Your task to perform on an android device: open app "Pluto TV - Live TV and Movies" (install if not already installed) Image 0: 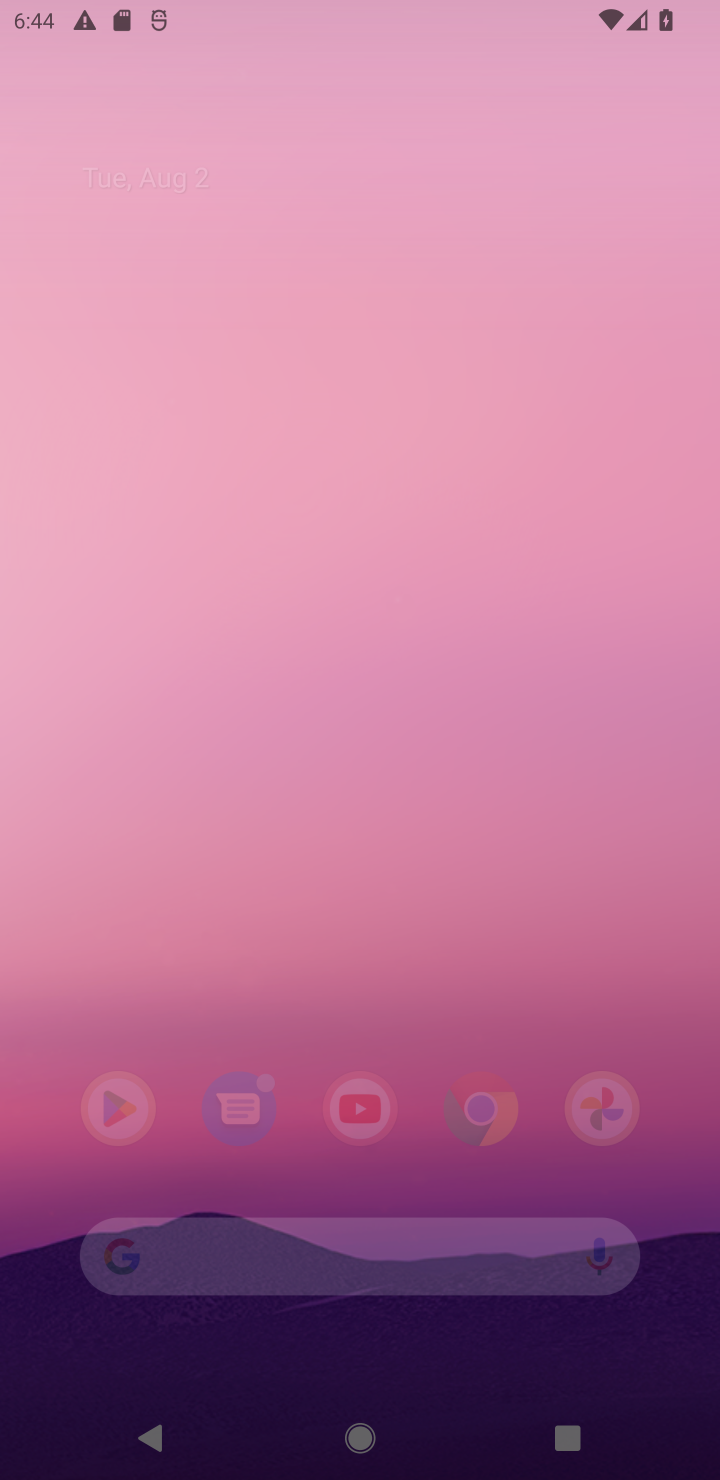
Step 0: press home button
Your task to perform on an android device: open app "Pluto TV - Live TV and Movies" (install if not already installed) Image 1: 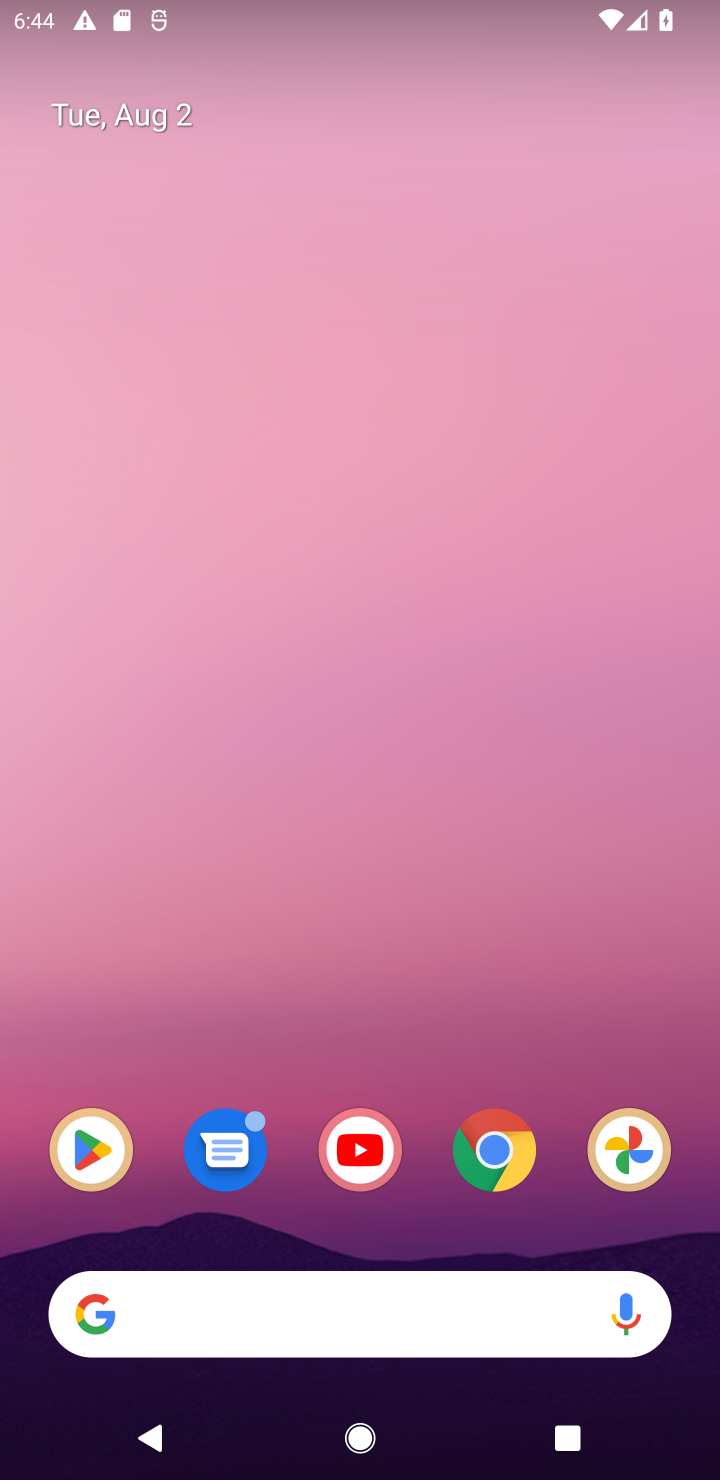
Step 1: drag from (294, 1215) to (400, 12)
Your task to perform on an android device: open app "Pluto TV - Live TV and Movies" (install if not already installed) Image 2: 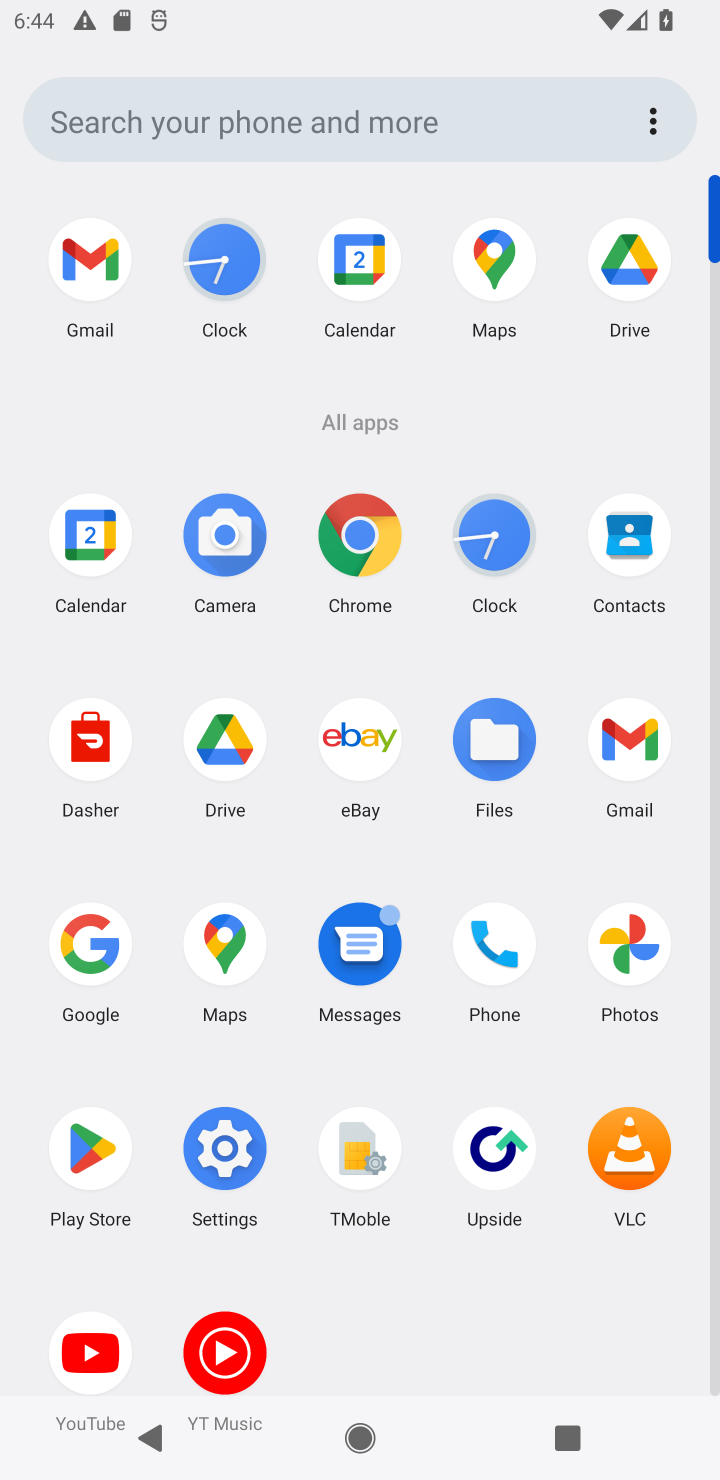
Step 2: click (80, 1148)
Your task to perform on an android device: open app "Pluto TV - Live TV and Movies" (install if not already installed) Image 3: 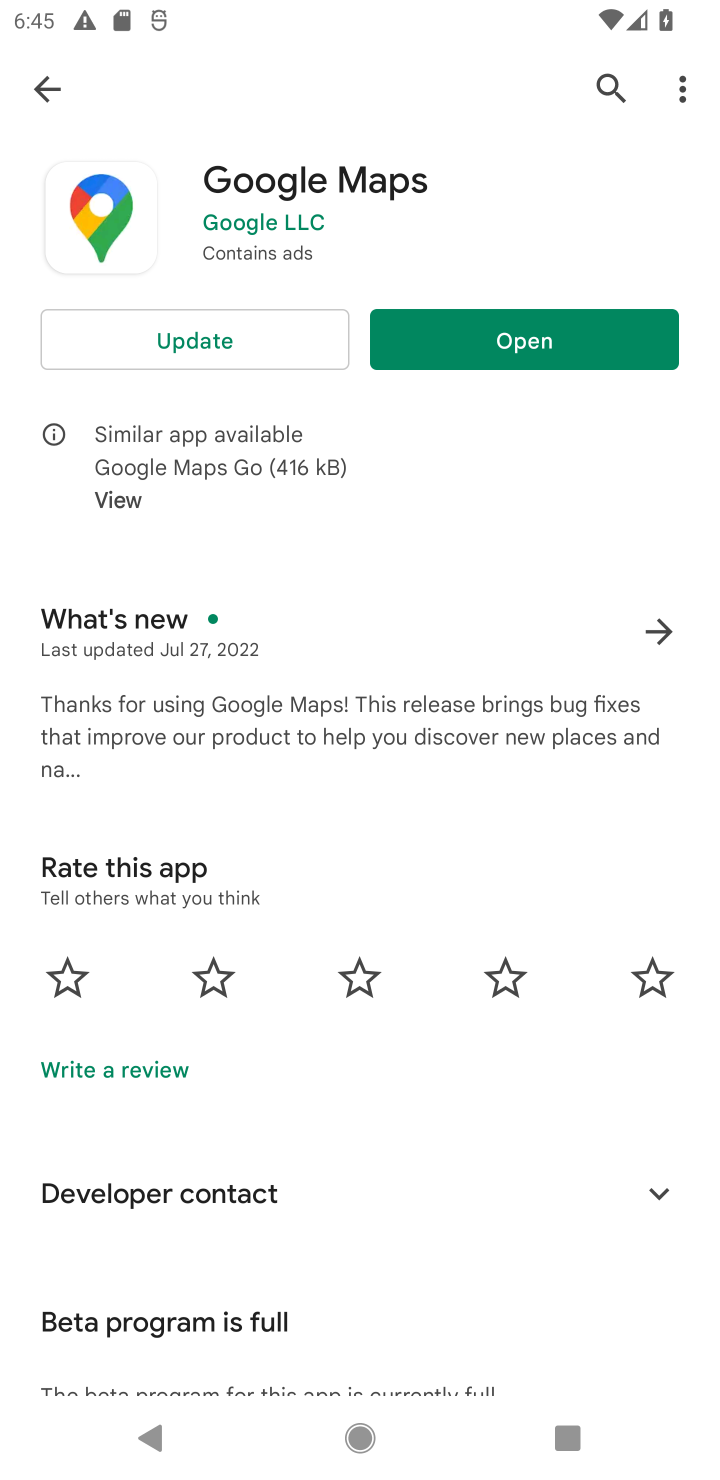
Step 3: click (40, 91)
Your task to perform on an android device: open app "Pluto TV - Live TV and Movies" (install if not already installed) Image 4: 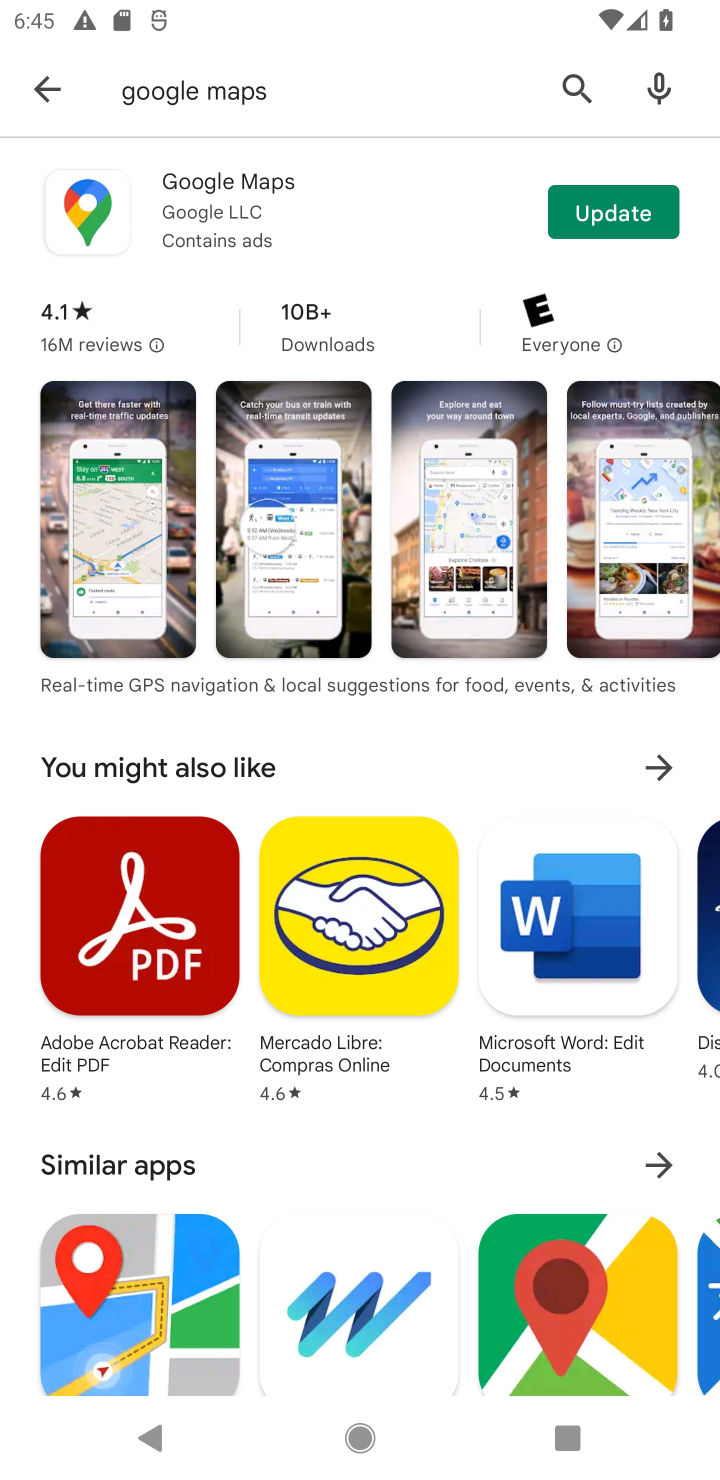
Step 4: click (16, 81)
Your task to perform on an android device: open app "Pluto TV - Live TV and Movies" (install if not already installed) Image 5: 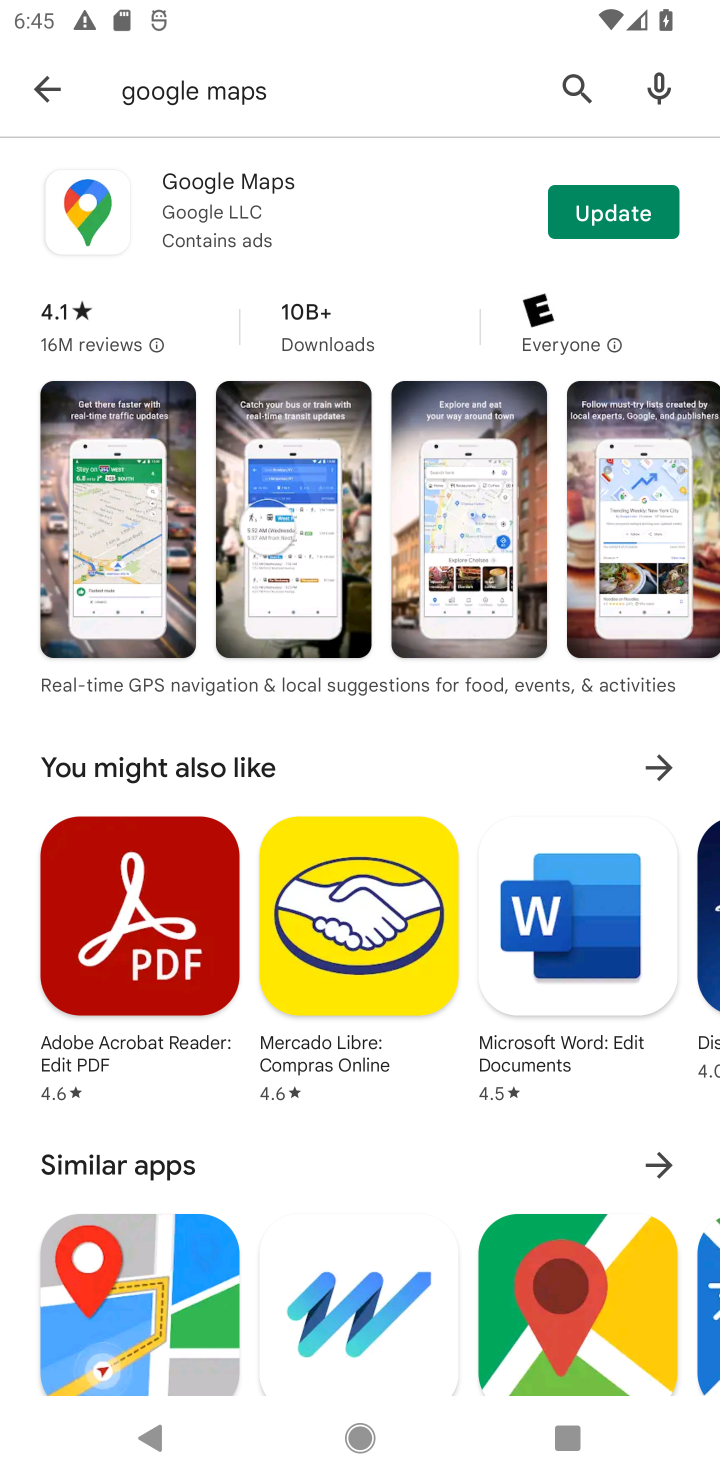
Step 5: click (23, 76)
Your task to perform on an android device: open app "Pluto TV - Live TV and Movies" (install if not already installed) Image 6: 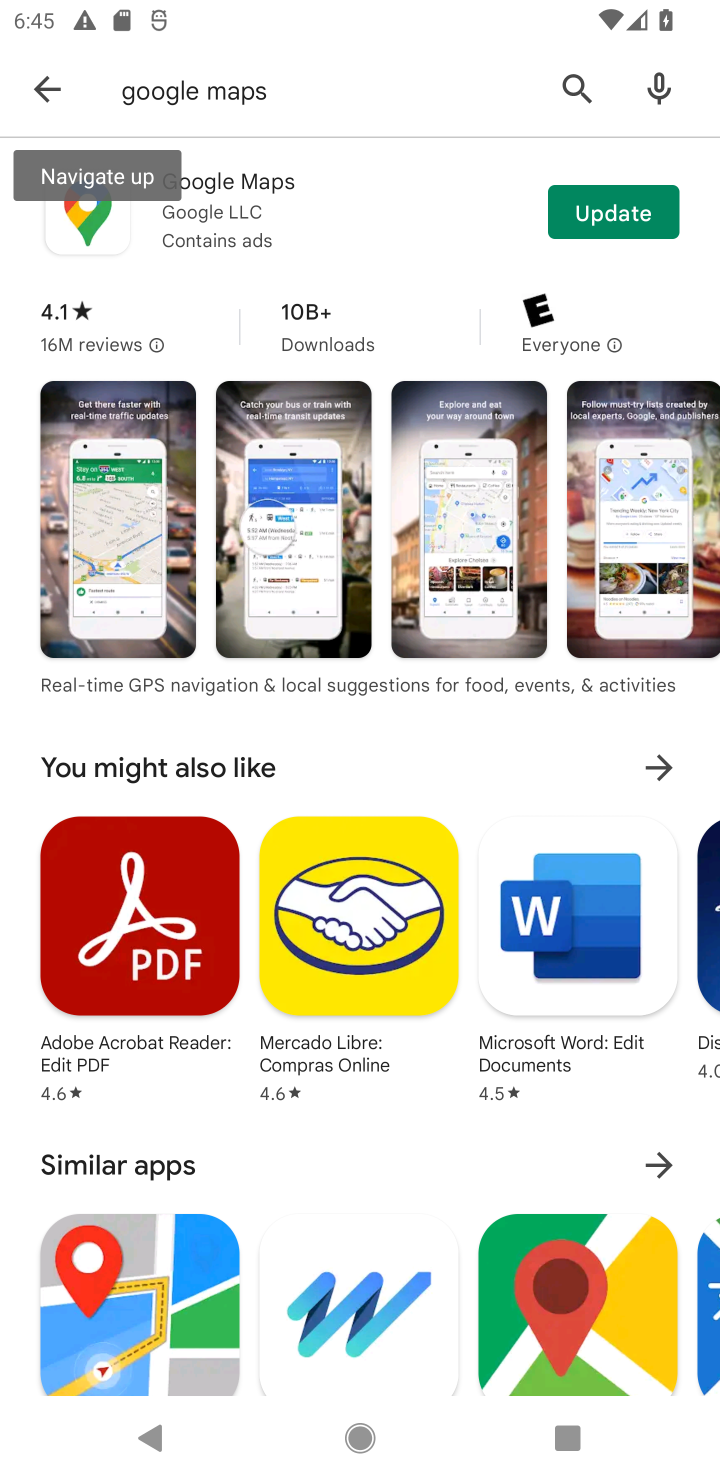
Step 6: click (26, 77)
Your task to perform on an android device: open app "Pluto TV - Live TV and Movies" (install if not already installed) Image 7: 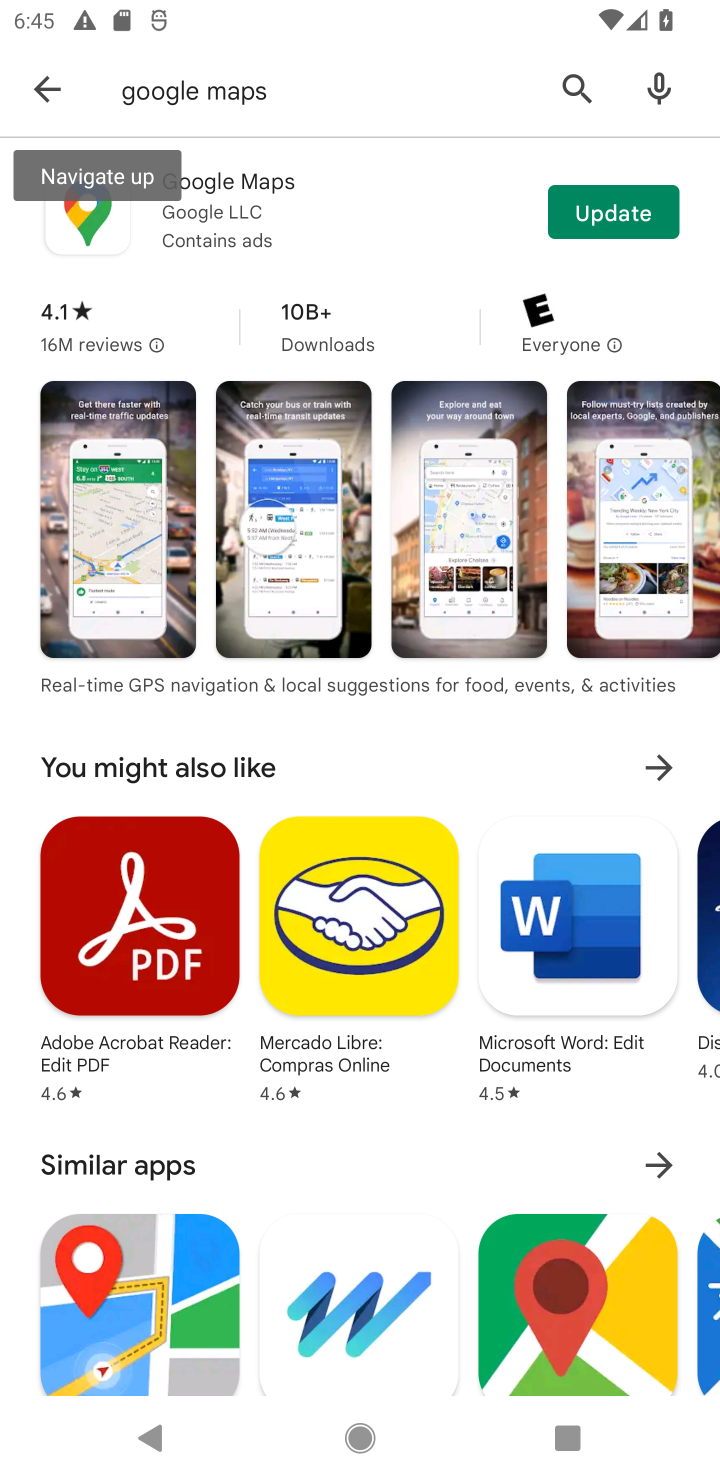
Step 7: click (579, 85)
Your task to perform on an android device: open app "Pluto TV - Live TV and Movies" (install if not already installed) Image 8: 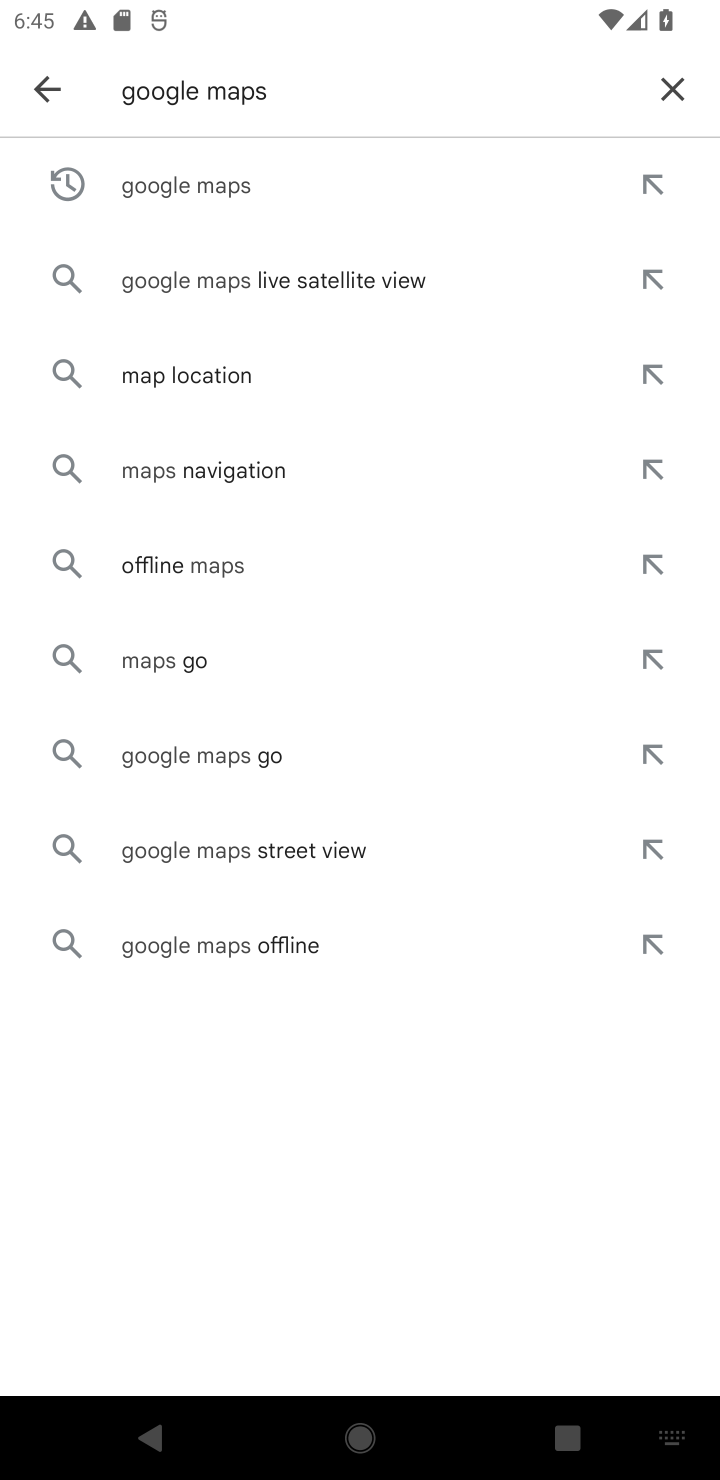
Step 8: click (657, 87)
Your task to perform on an android device: open app "Pluto TV - Live TV and Movies" (install if not already installed) Image 9: 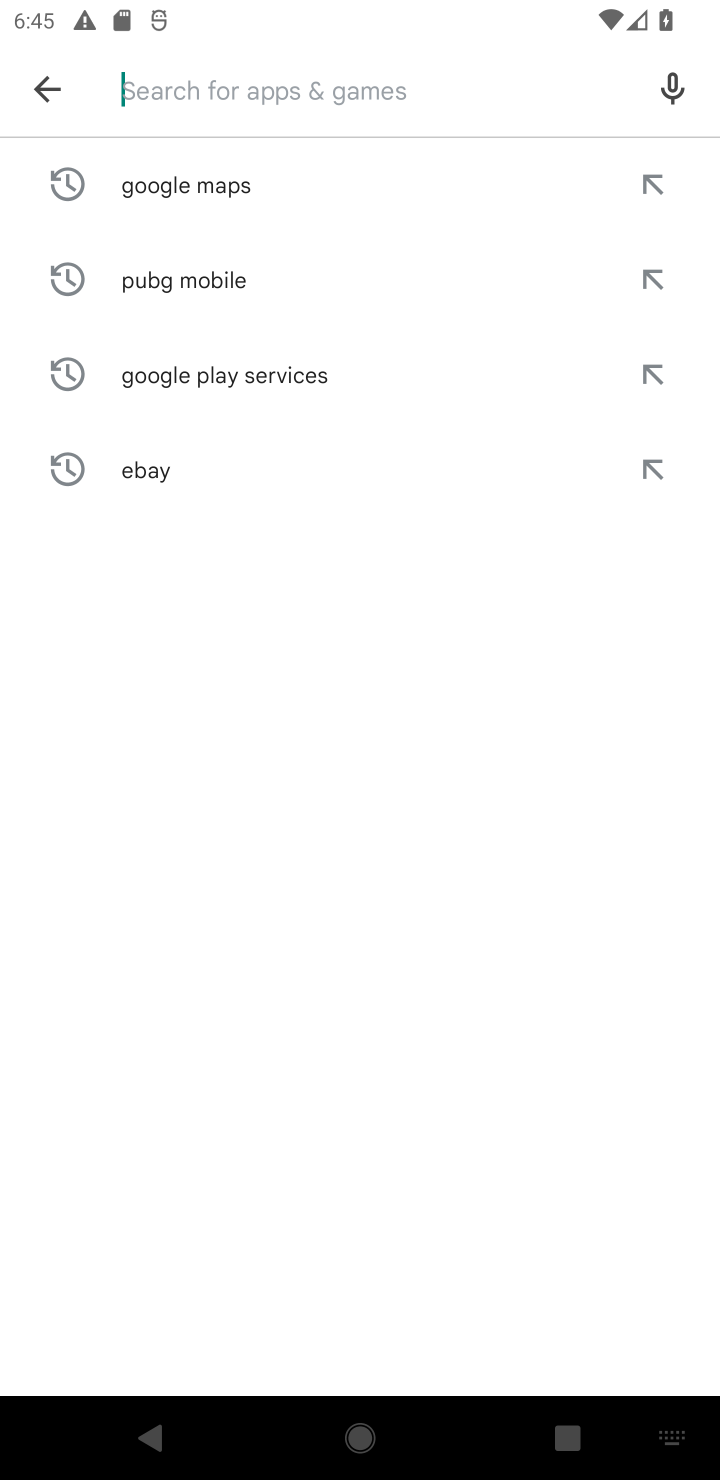
Step 9: type "Pluto TV - Live TV and Movies"
Your task to perform on an android device: open app "Pluto TV - Live TV and Movies" (install if not already installed) Image 10: 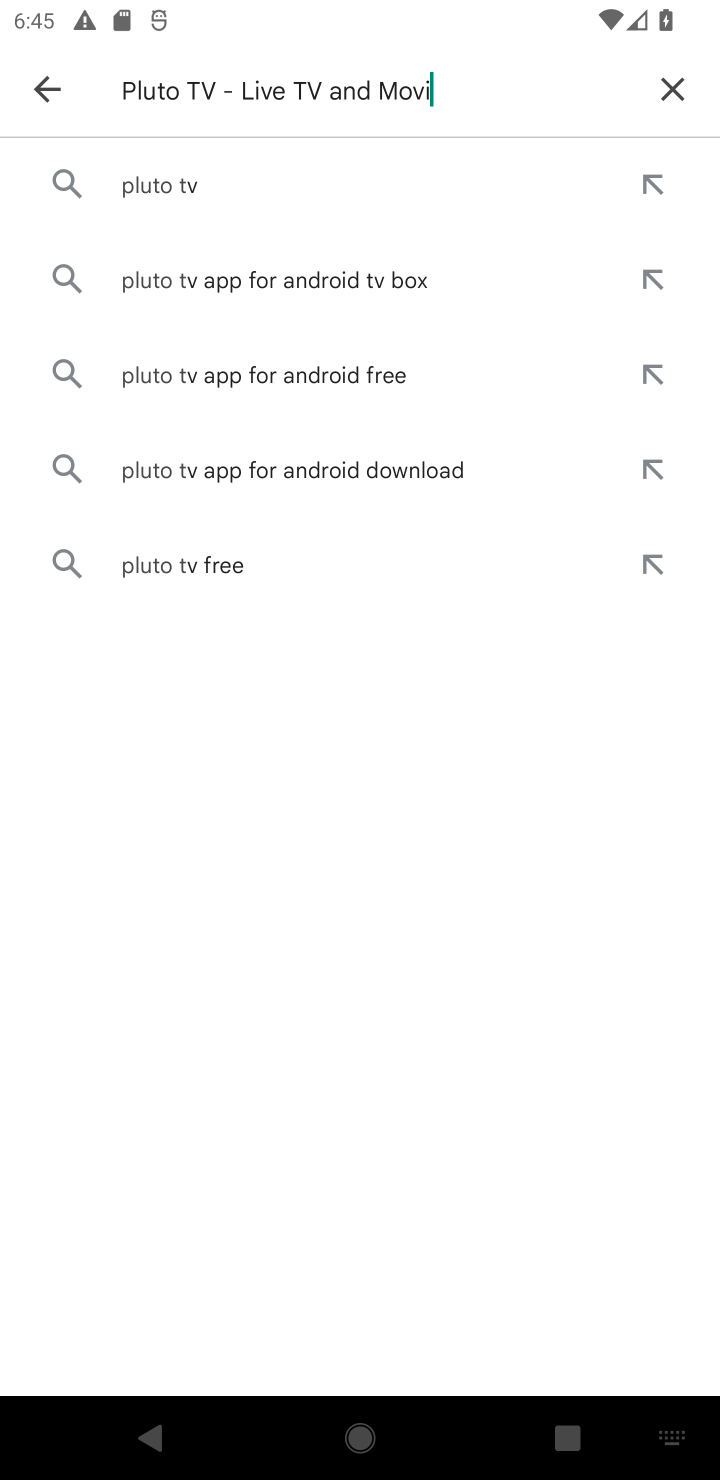
Step 10: type ""
Your task to perform on an android device: open app "Pluto TV - Live TV and Movies" (install if not already installed) Image 11: 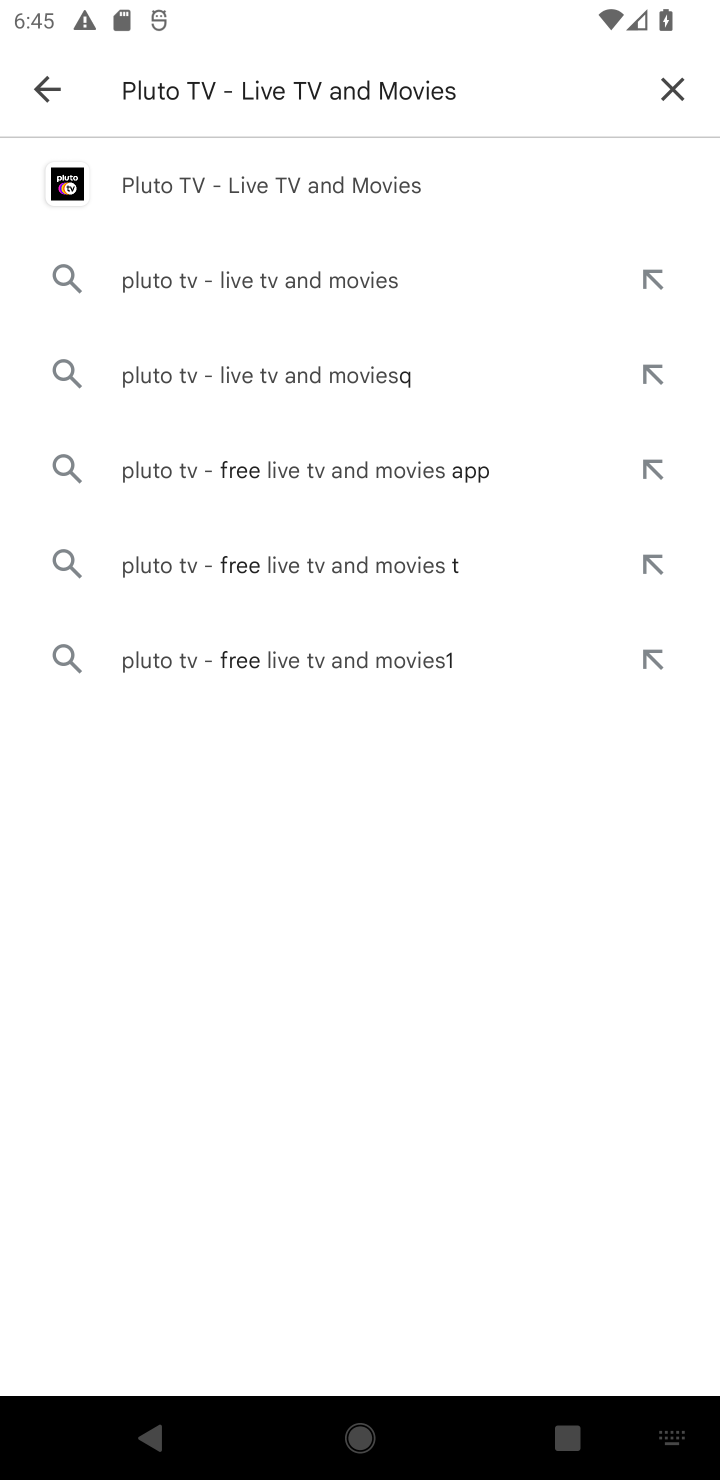
Step 11: click (160, 173)
Your task to perform on an android device: open app "Pluto TV - Live TV and Movies" (install if not already installed) Image 12: 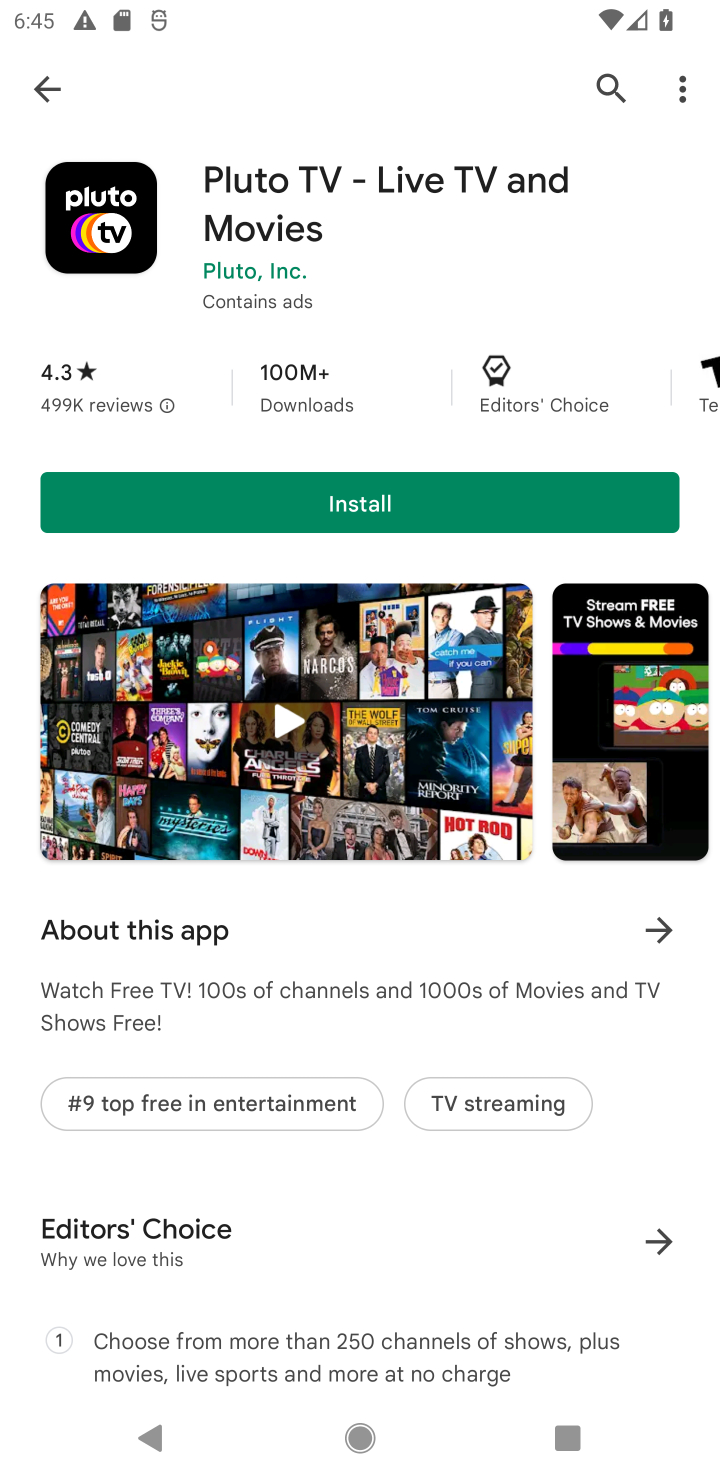
Step 12: click (434, 511)
Your task to perform on an android device: open app "Pluto TV - Live TV and Movies" (install if not already installed) Image 13: 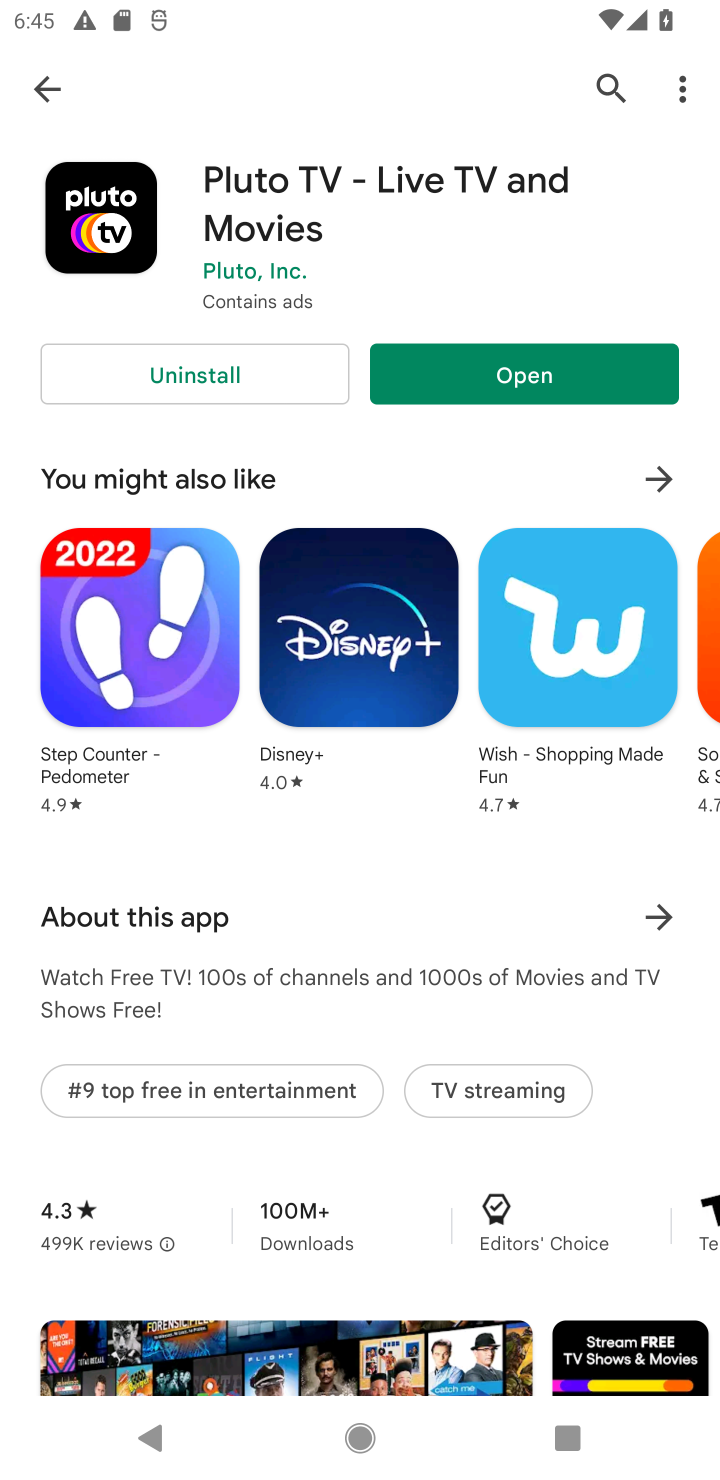
Step 13: click (489, 389)
Your task to perform on an android device: open app "Pluto TV - Live TV and Movies" (install if not already installed) Image 14: 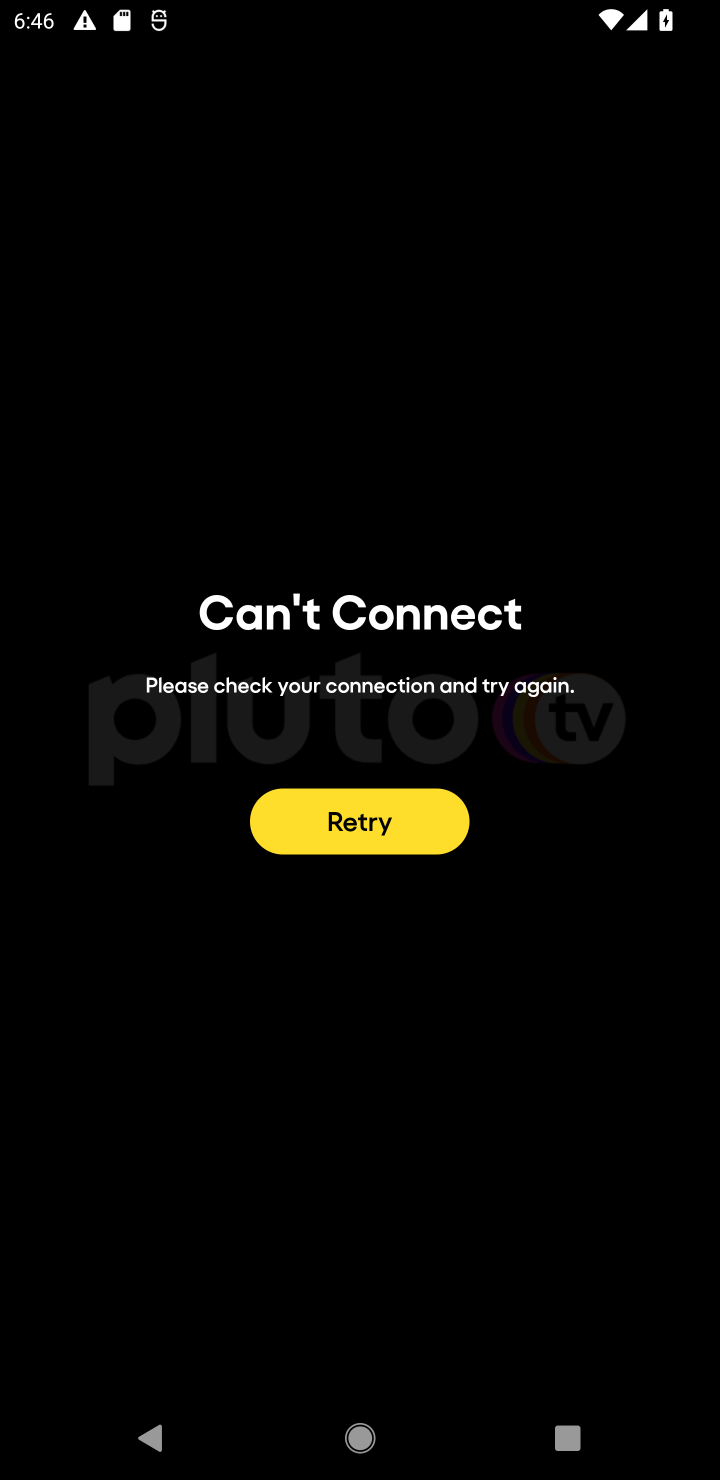
Step 14: click (382, 828)
Your task to perform on an android device: open app "Pluto TV - Live TV and Movies" (install if not already installed) Image 15: 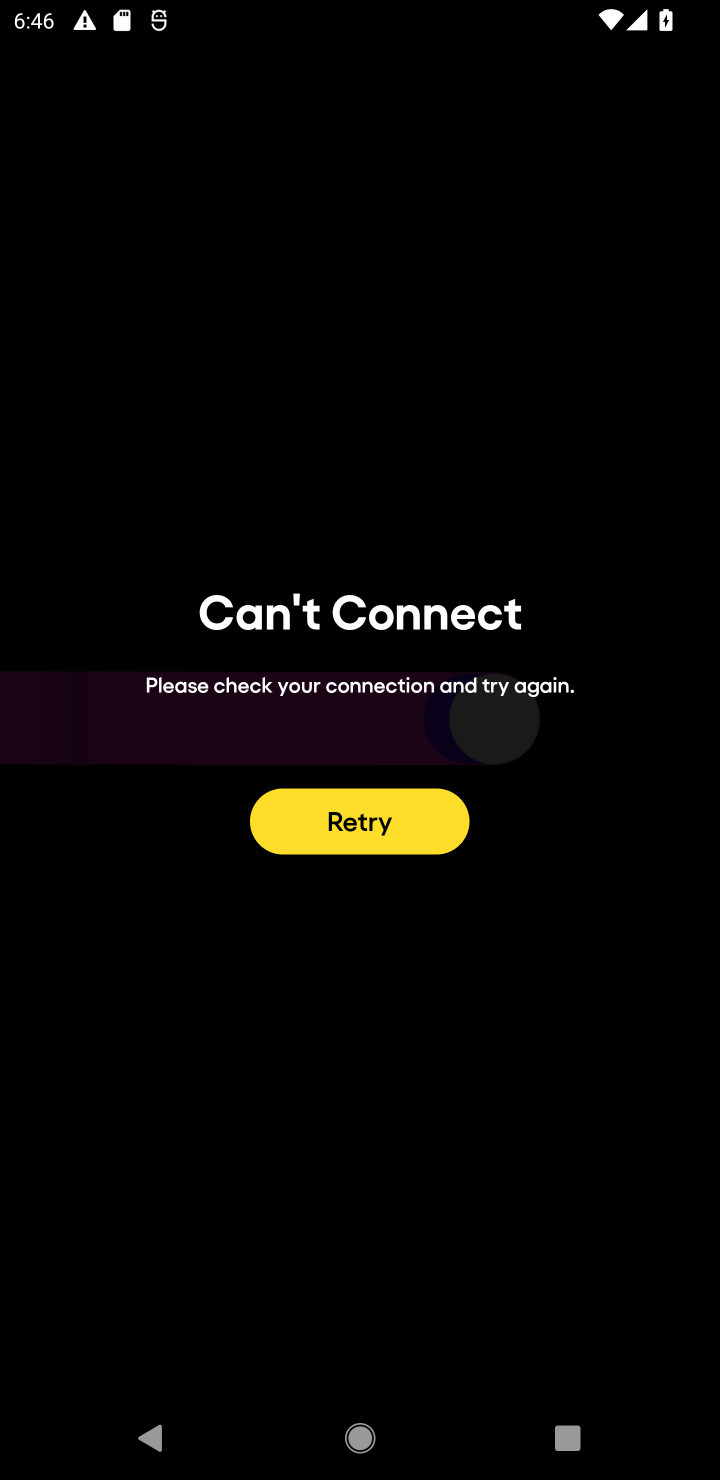
Step 15: task complete